Your task to perform on an android device: set the stopwatch Image 0: 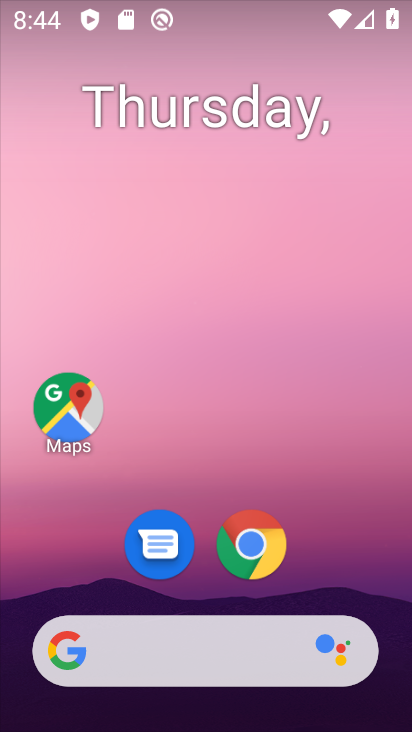
Step 0: press home button
Your task to perform on an android device: set the stopwatch Image 1: 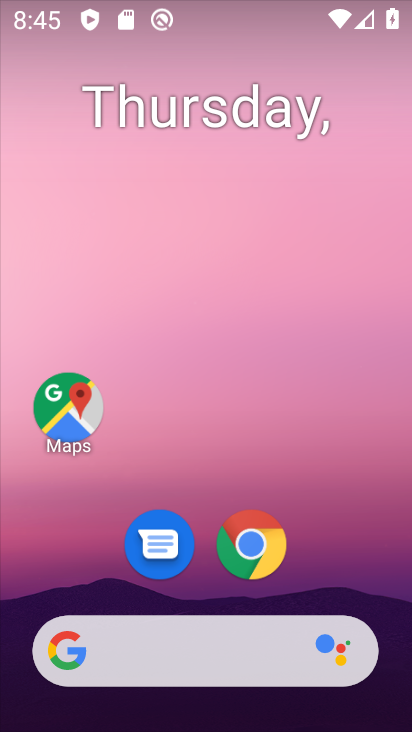
Step 1: drag from (189, 718) to (149, 27)
Your task to perform on an android device: set the stopwatch Image 2: 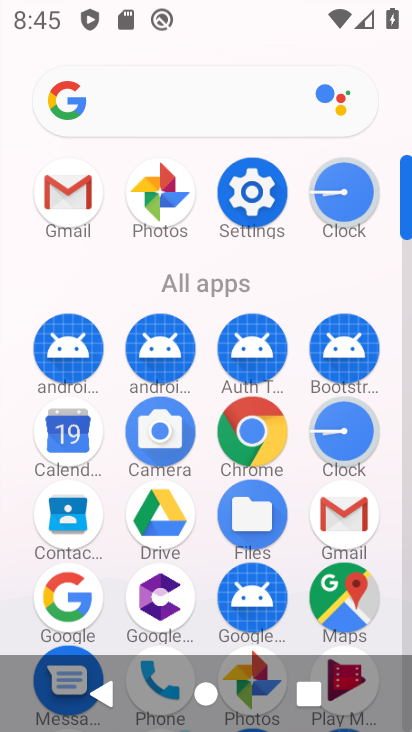
Step 2: click (356, 210)
Your task to perform on an android device: set the stopwatch Image 3: 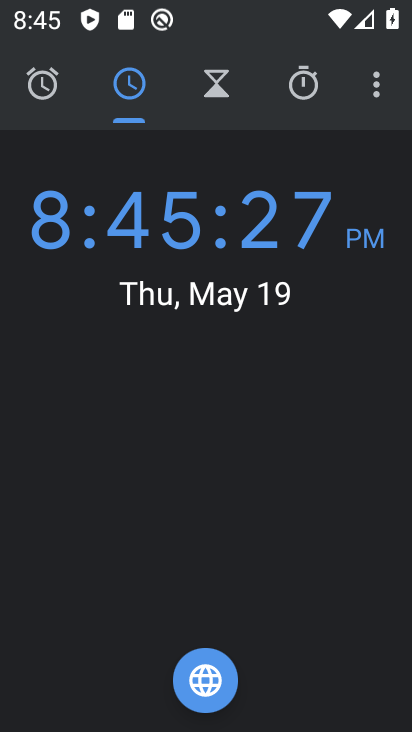
Step 3: click (296, 80)
Your task to perform on an android device: set the stopwatch Image 4: 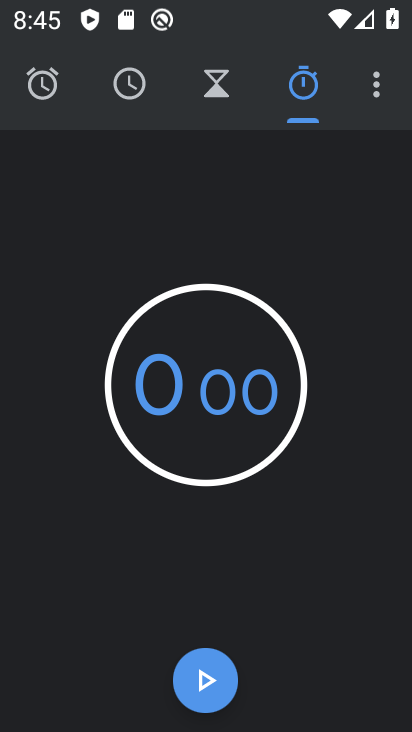
Step 4: task complete